Your task to perform on an android device: Go to privacy settings Image 0: 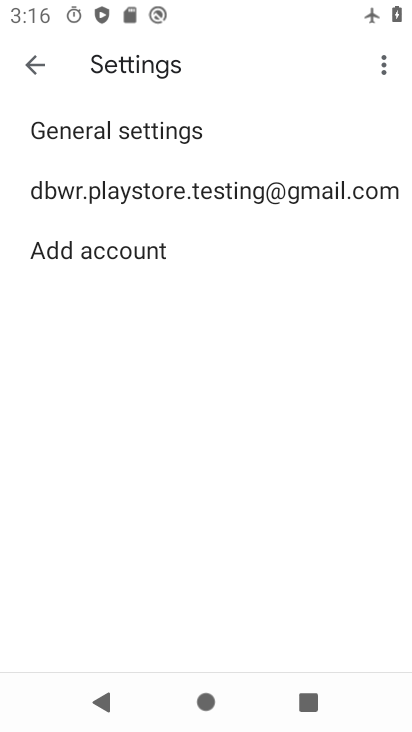
Step 0: press home button
Your task to perform on an android device: Go to privacy settings Image 1: 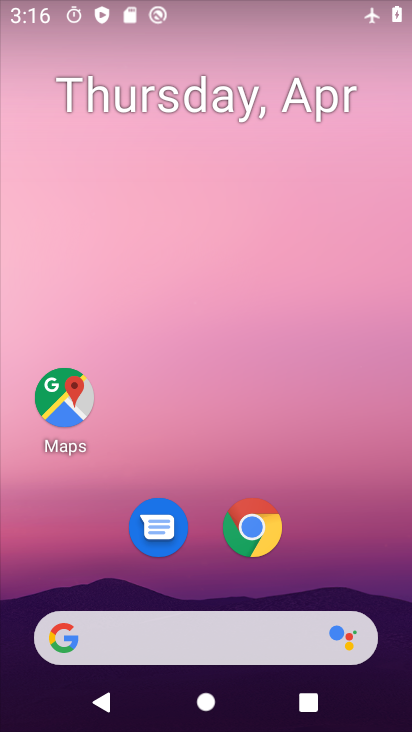
Step 1: drag from (357, 562) to (306, 214)
Your task to perform on an android device: Go to privacy settings Image 2: 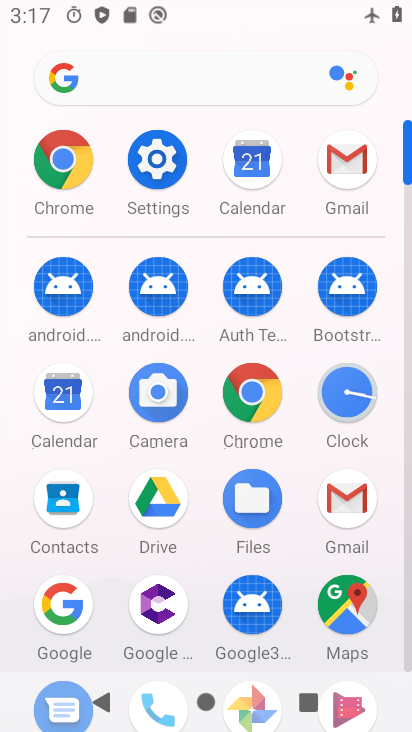
Step 2: click (167, 157)
Your task to perform on an android device: Go to privacy settings Image 3: 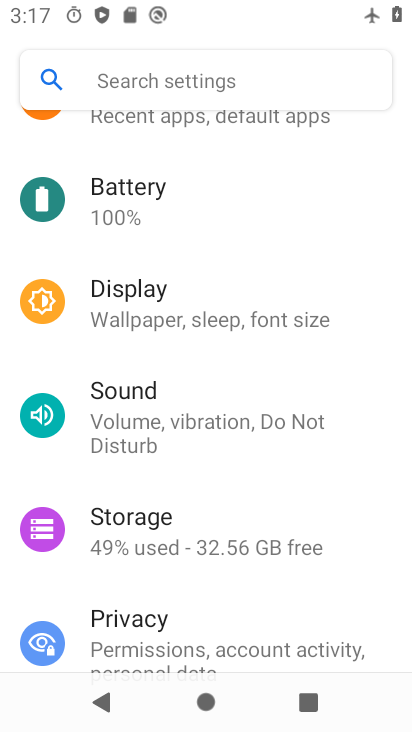
Step 3: drag from (206, 526) to (255, 265)
Your task to perform on an android device: Go to privacy settings Image 4: 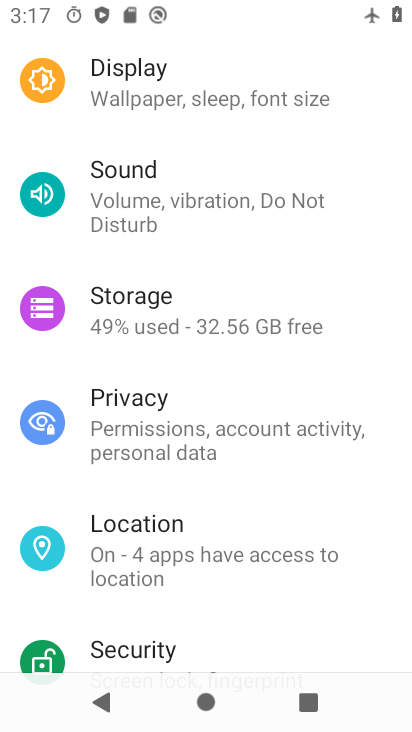
Step 4: click (154, 400)
Your task to perform on an android device: Go to privacy settings Image 5: 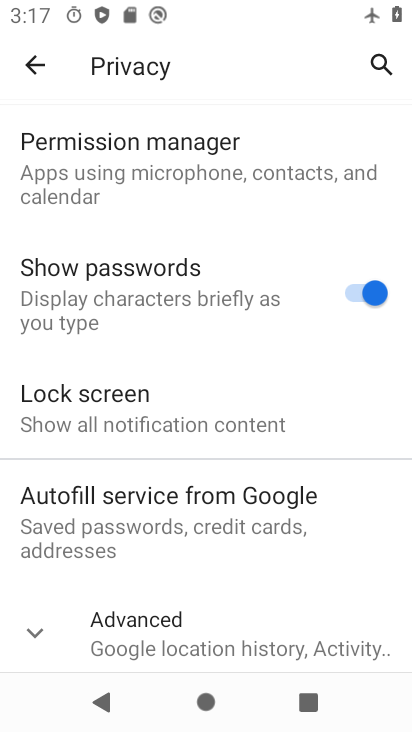
Step 5: task complete